Your task to perform on an android device: snooze an email in the gmail app Image 0: 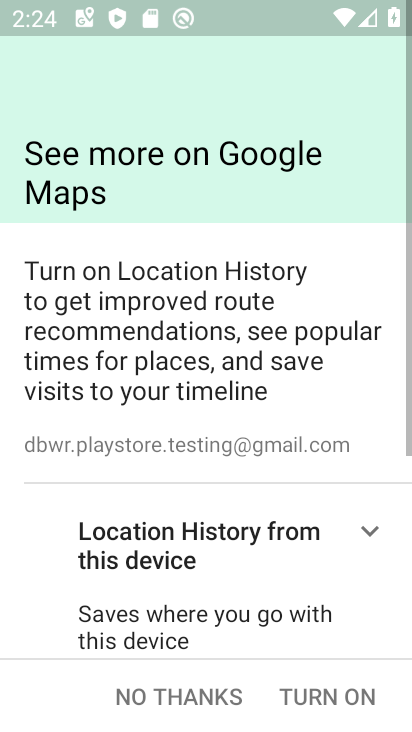
Step 0: press home button
Your task to perform on an android device: snooze an email in the gmail app Image 1: 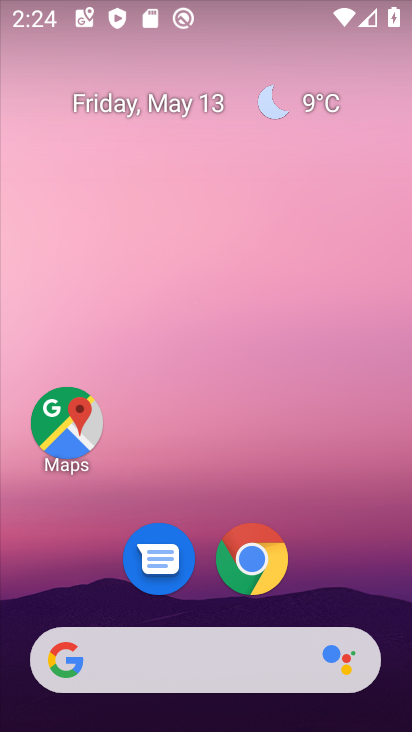
Step 1: drag from (311, 590) to (289, 113)
Your task to perform on an android device: snooze an email in the gmail app Image 2: 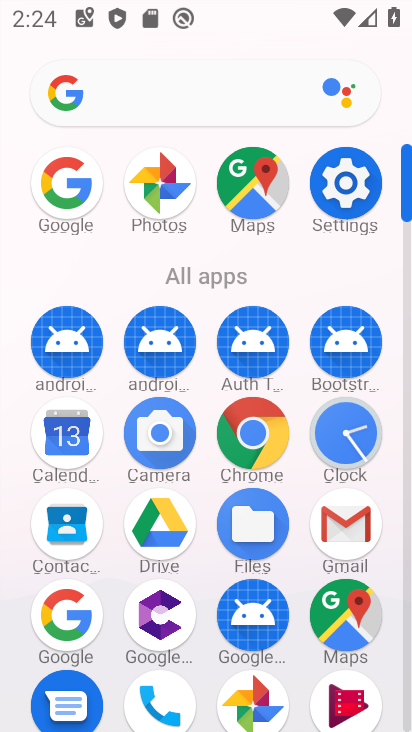
Step 2: click (355, 552)
Your task to perform on an android device: snooze an email in the gmail app Image 3: 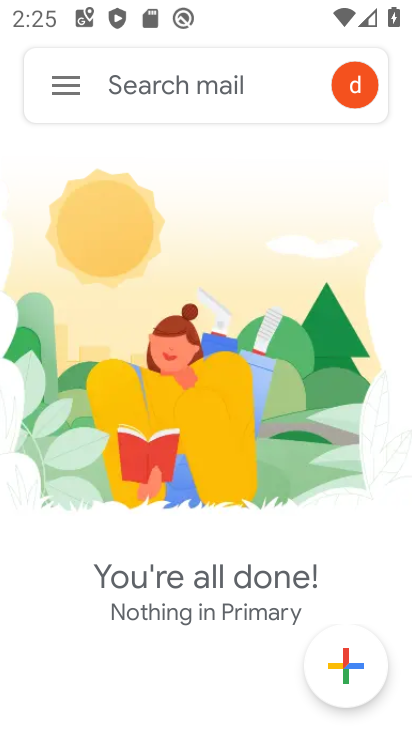
Step 3: click (57, 80)
Your task to perform on an android device: snooze an email in the gmail app Image 4: 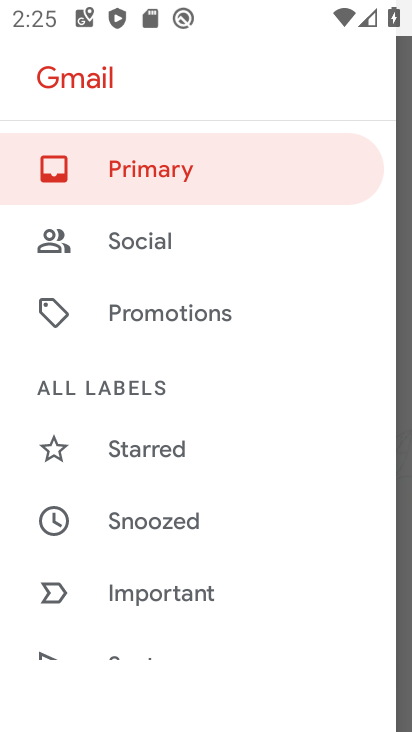
Step 4: drag from (213, 578) to (188, 85)
Your task to perform on an android device: snooze an email in the gmail app Image 5: 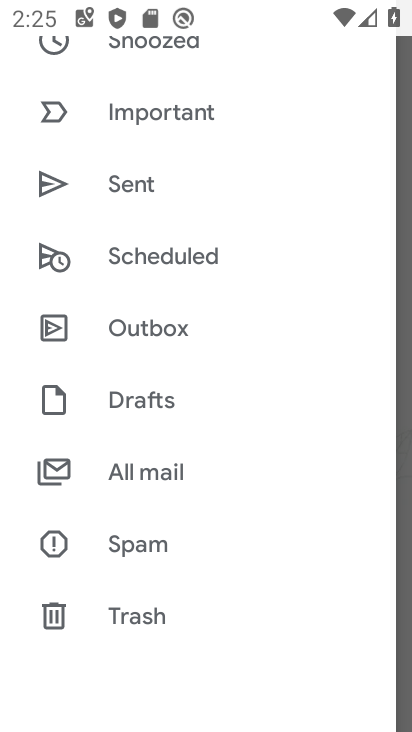
Step 5: click (165, 476)
Your task to perform on an android device: snooze an email in the gmail app Image 6: 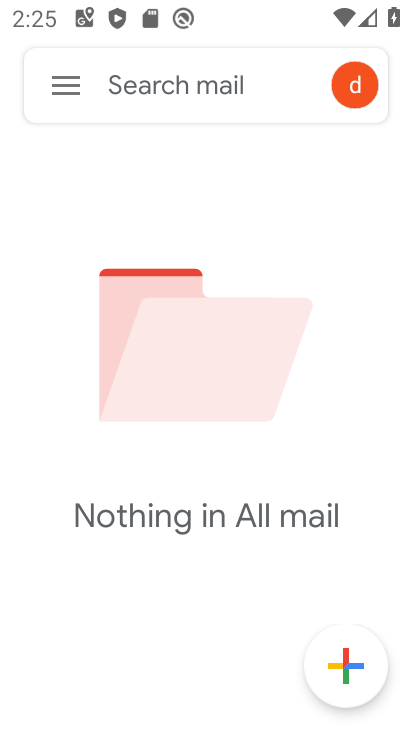
Step 6: task complete